Your task to perform on an android device: open app "Facebook Lite" Image 0: 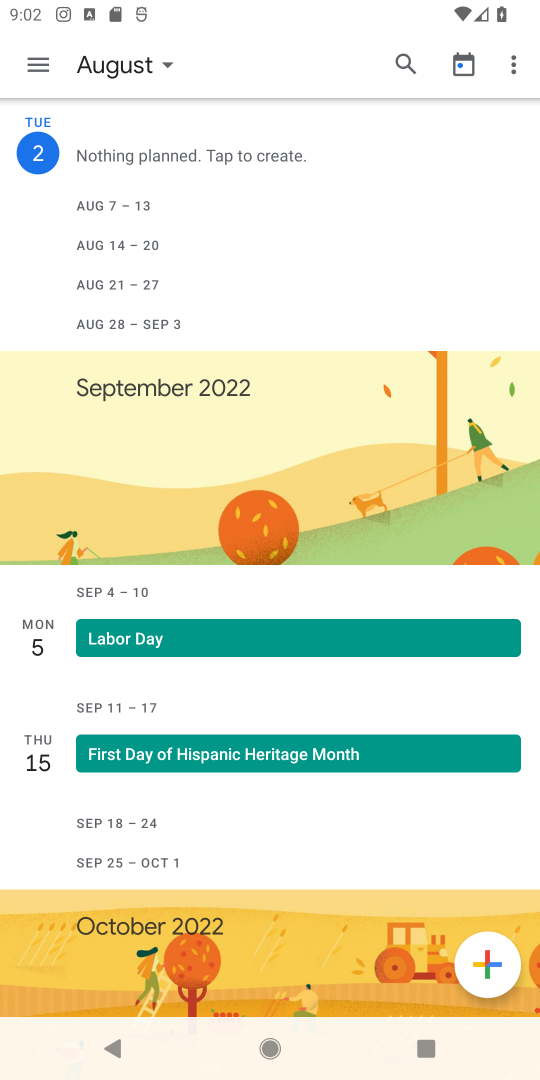
Step 0: press home button
Your task to perform on an android device: open app "Facebook Lite" Image 1: 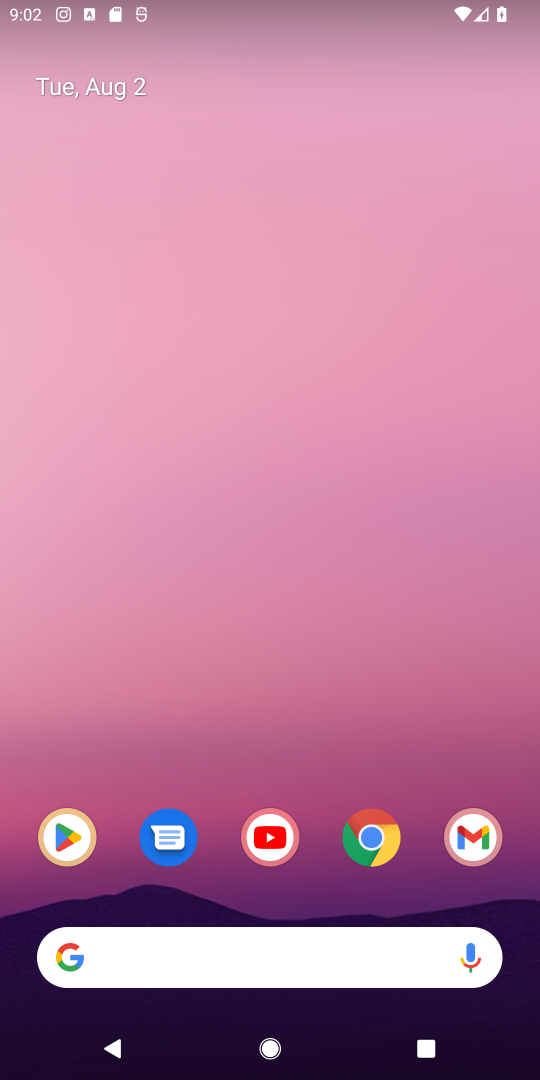
Step 1: click (57, 850)
Your task to perform on an android device: open app "Facebook Lite" Image 2: 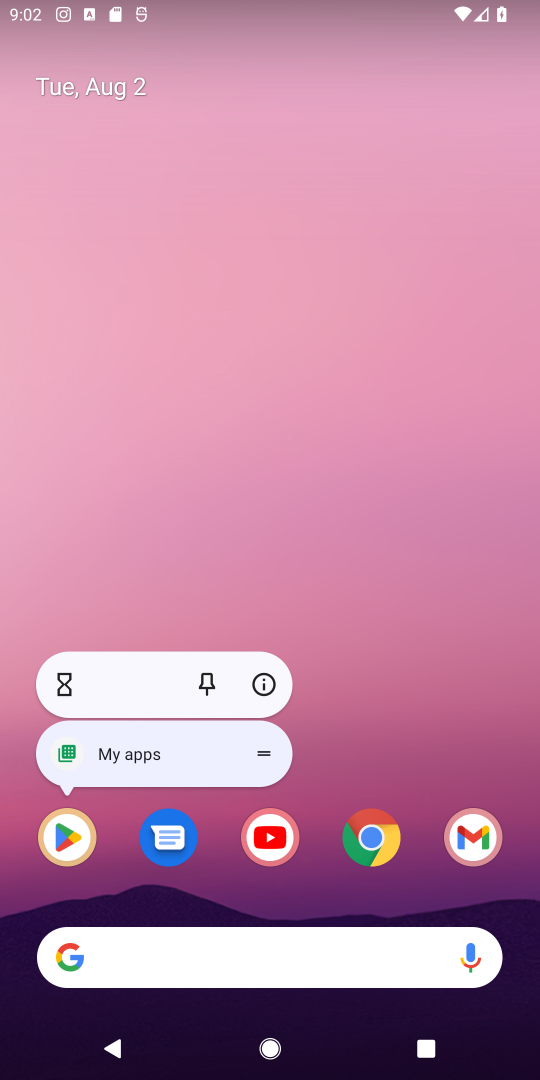
Step 2: click (67, 837)
Your task to perform on an android device: open app "Facebook Lite" Image 3: 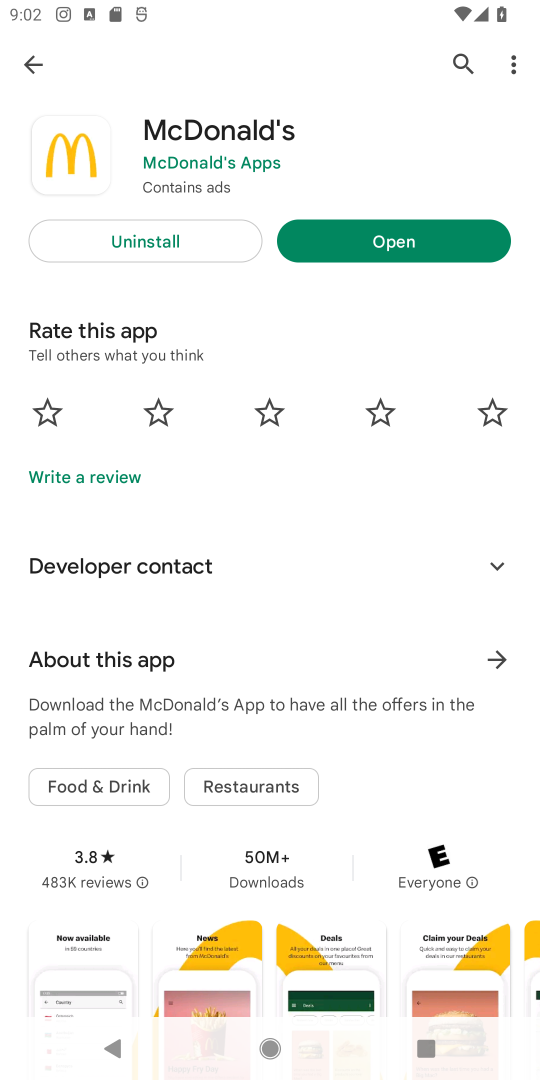
Step 3: click (461, 66)
Your task to perform on an android device: open app "Facebook Lite" Image 4: 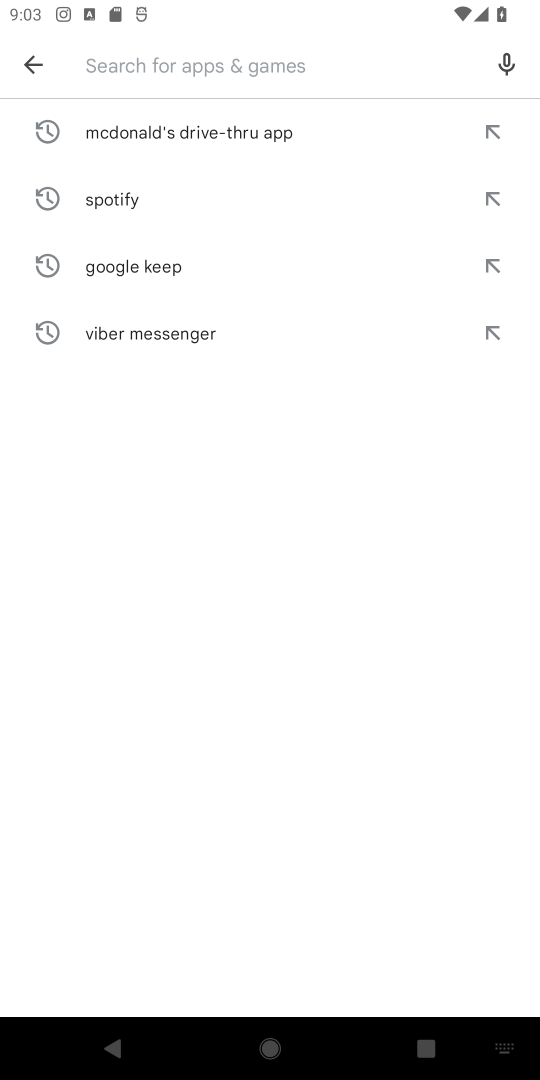
Step 4: type "Facebook Lite"
Your task to perform on an android device: open app "Facebook Lite" Image 5: 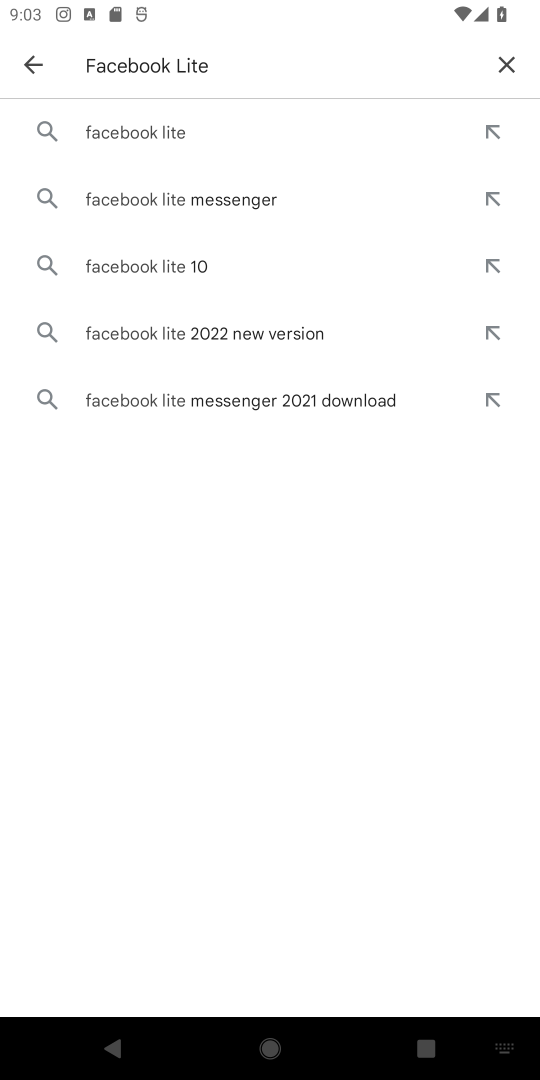
Step 5: click (146, 141)
Your task to perform on an android device: open app "Facebook Lite" Image 6: 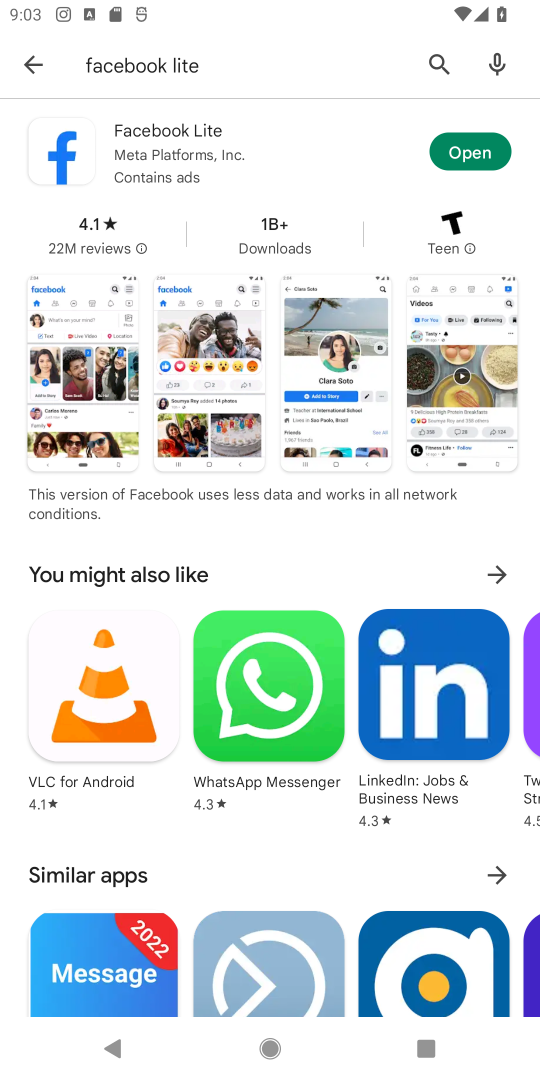
Step 6: click (465, 155)
Your task to perform on an android device: open app "Facebook Lite" Image 7: 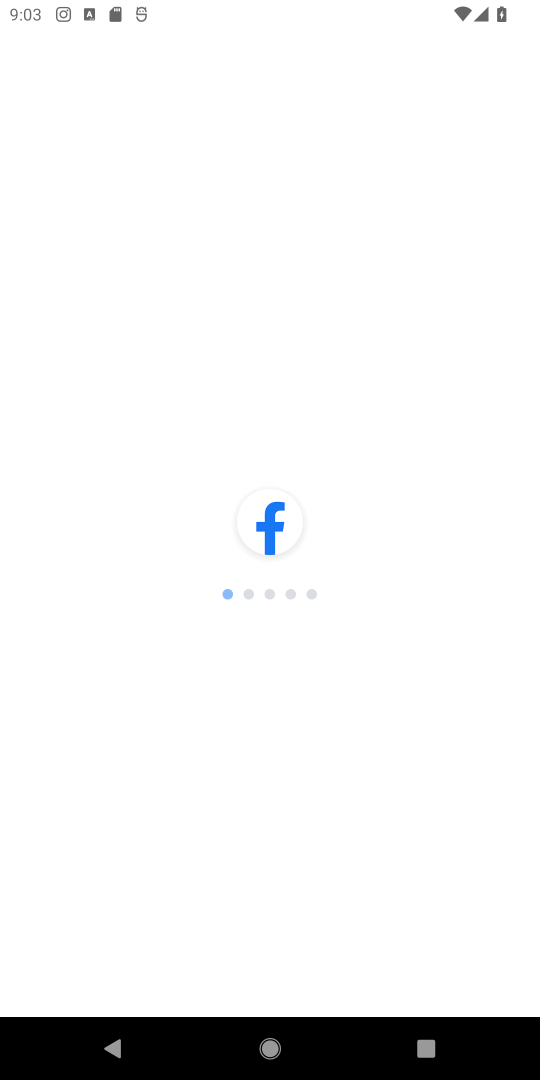
Step 7: task complete